Your task to perform on an android device: turn off data saver in the chrome app Image 0: 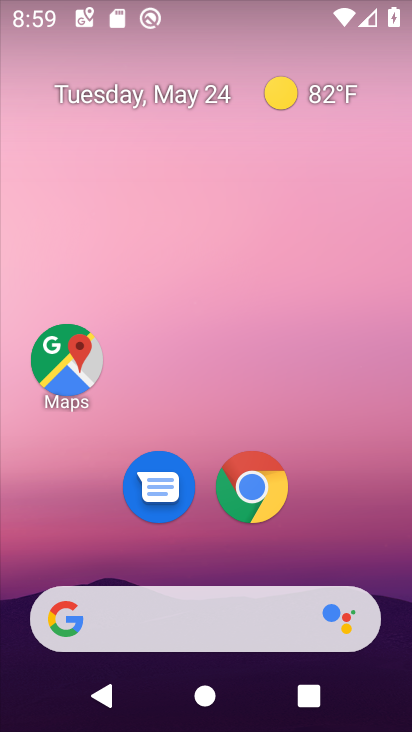
Step 0: drag from (326, 517) to (346, 144)
Your task to perform on an android device: turn off data saver in the chrome app Image 1: 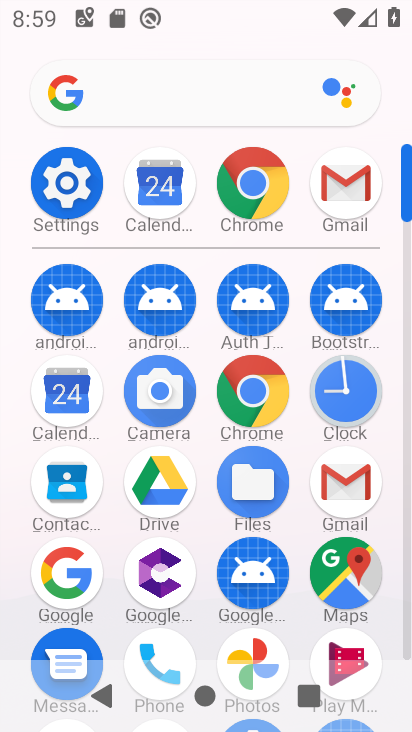
Step 1: click (239, 394)
Your task to perform on an android device: turn off data saver in the chrome app Image 2: 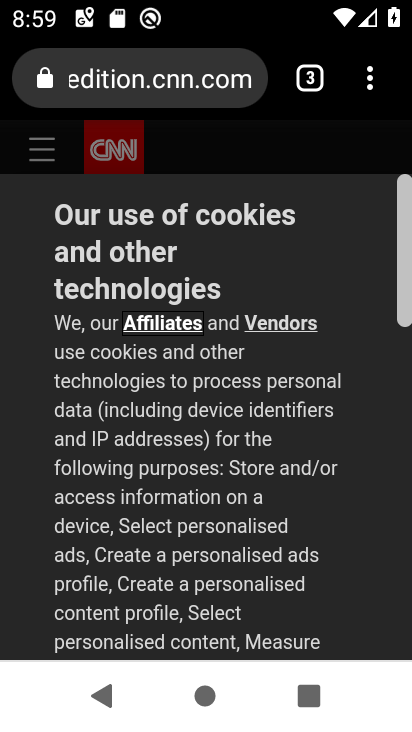
Step 2: drag from (365, 90) to (118, 543)
Your task to perform on an android device: turn off data saver in the chrome app Image 3: 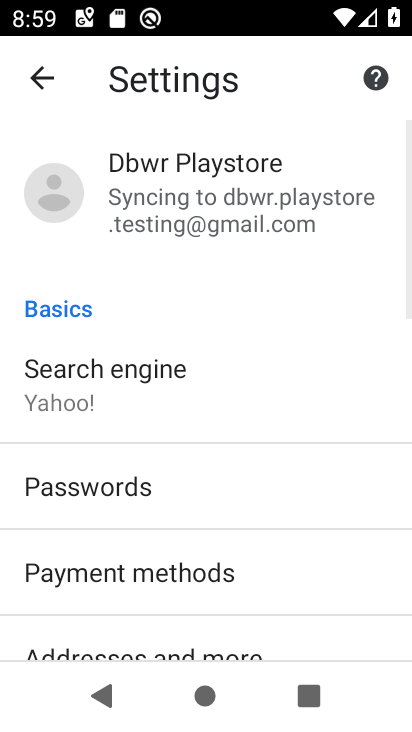
Step 3: drag from (263, 623) to (287, 241)
Your task to perform on an android device: turn off data saver in the chrome app Image 4: 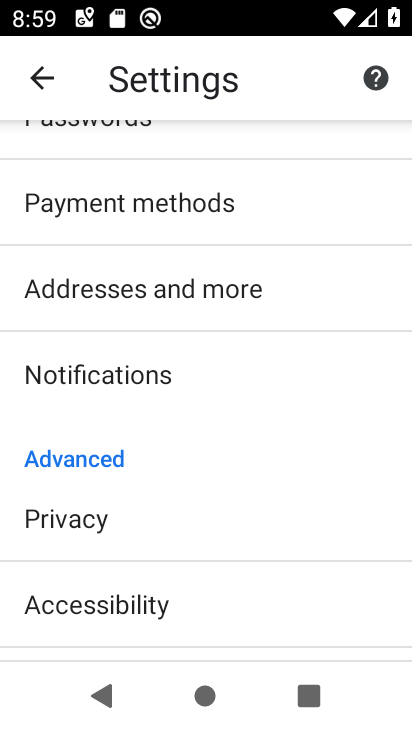
Step 4: drag from (276, 553) to (284, 218)
Your task to perform on an android device: turn off data saver in the chrome app Image 5: 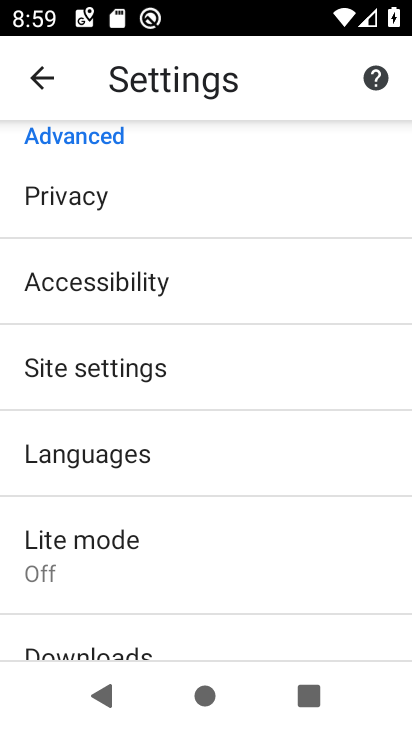
Step 5: click (72, 549)
Your task to perform on an android device: turn off data saver in the chrome app Image 6: 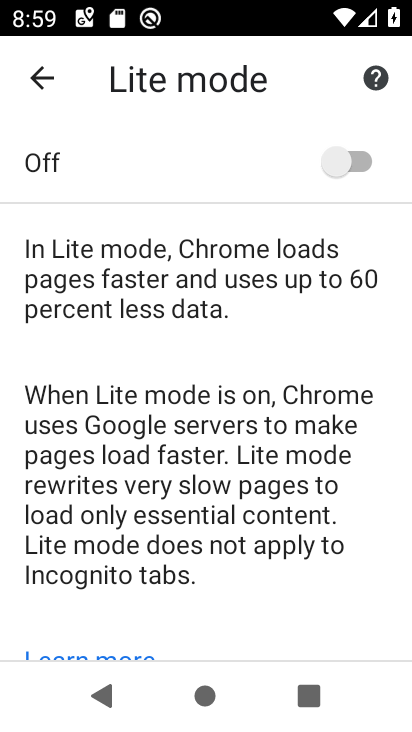
Step 6: task complete